Your task to perform on an android device: Open CNN.com Image 0: 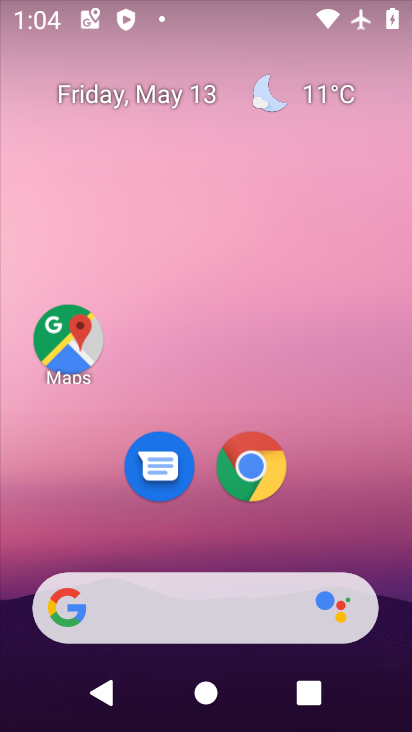
Step 0: click (273, 7)
Your task to perform on an android device: Open CNN.com Image 1: 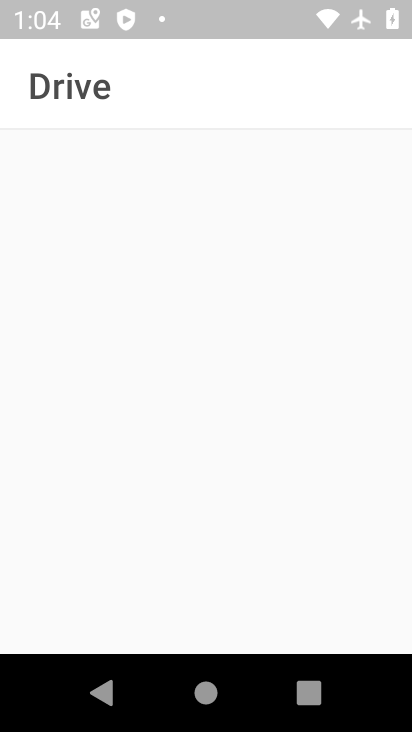
Step 1: press home button
Your task to perform on an android device: Open CNN.com Image 2: 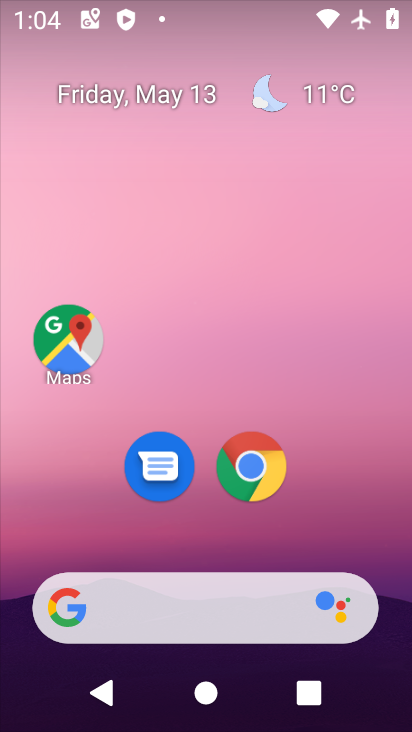
Step 2: click (243, 476)
Your task to perform on an android device: Open CNN.com Image 3: 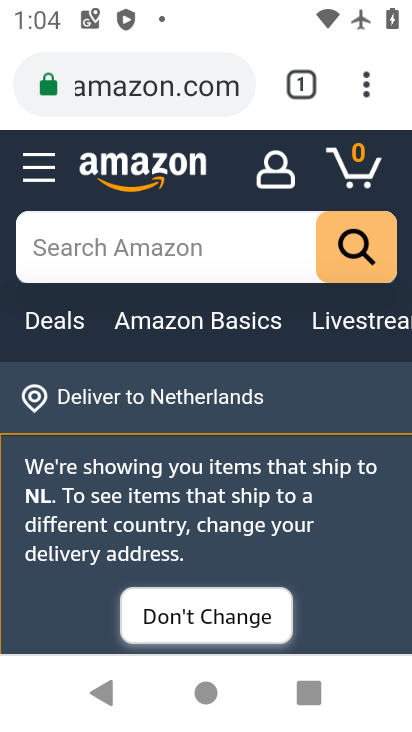
Step 3: click (131, 70)
Your task to perform on an android device: Open CNN.com Image 4: 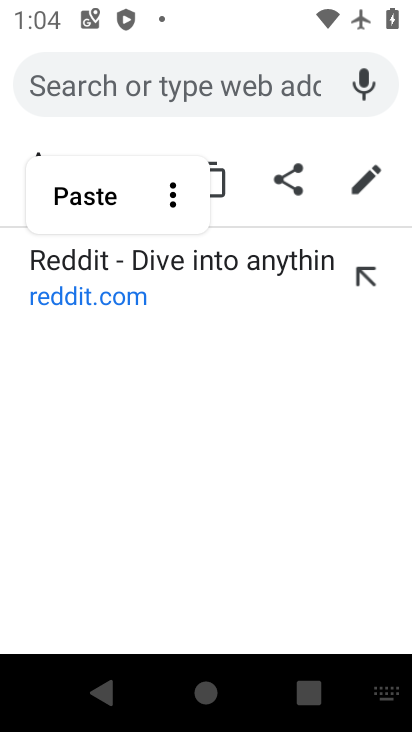
Step 4: type "CNN.com"
Your task to perform on an android device: Open CNN.com Image 5: 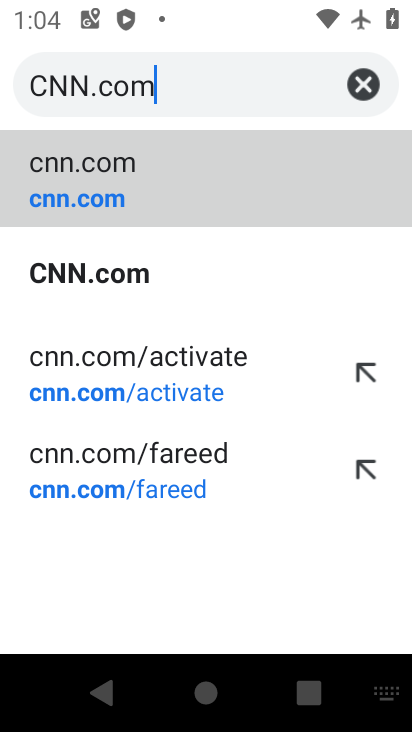
Step 5: click (68, 204)
Your task to perform on an android device: Open CNN.com Image 6: 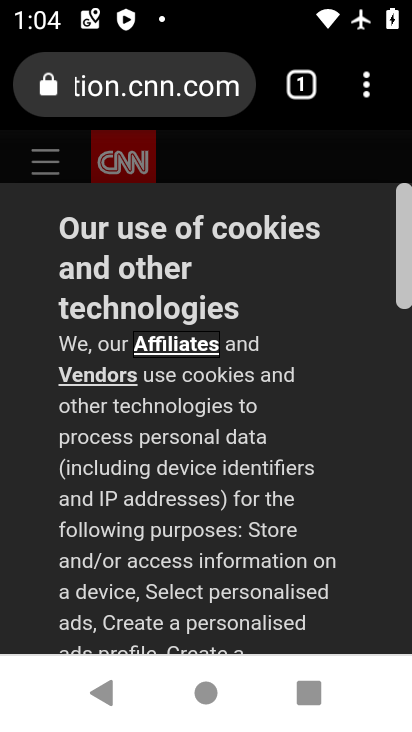
Step 6: task complete